Your task to perform on an android device: Show me the alarms in the clock app Image 0: 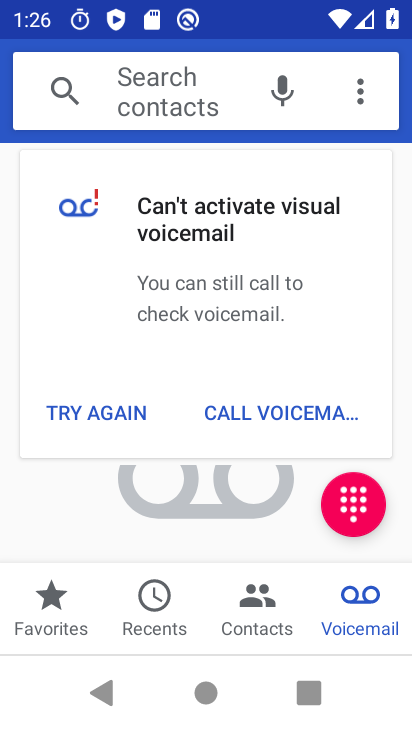
Step 0: press home button
Your task to perform on an android device: Show me the alarms in the clock app Image 1: 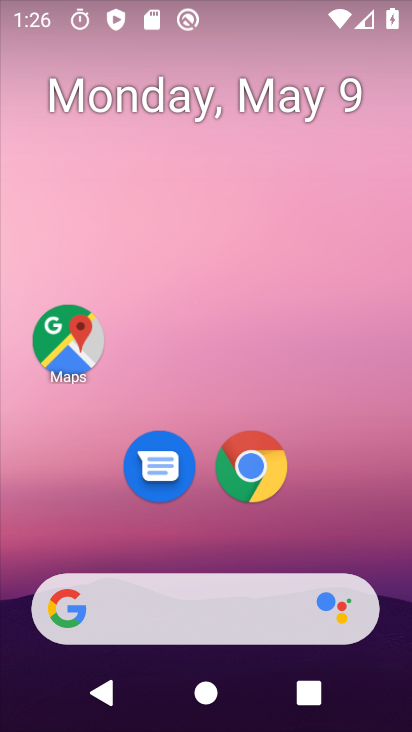
Step 1: drag from (262, 600) to (242, 332)
Your task to perform on an android device: Show me the alarms in the clock app Image 2: 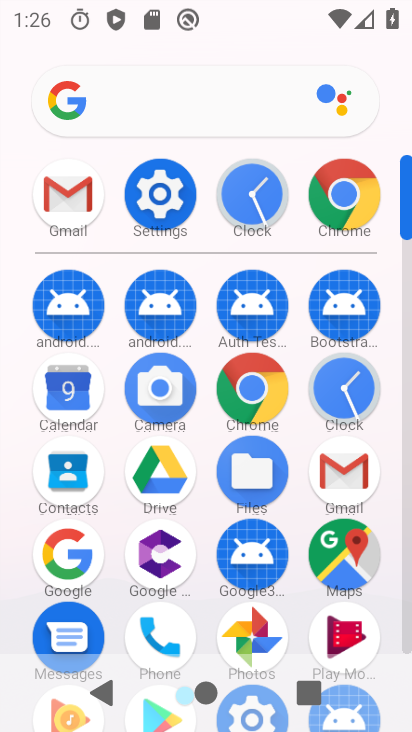
Step 2: click (354, 400)
Your task to perform on an android device: Show me the alarms in the clock app Image 3: 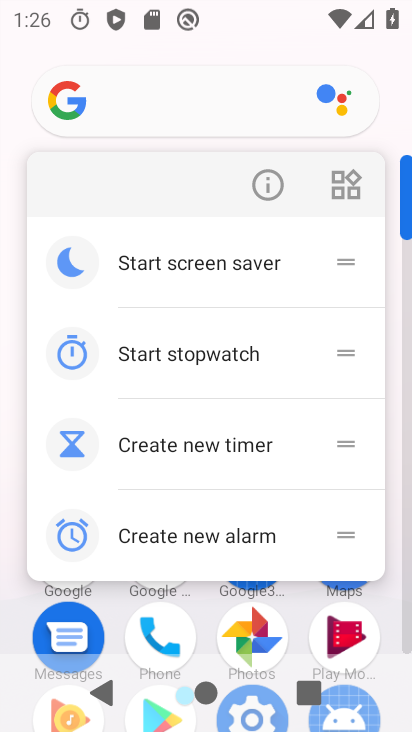
Step 3: click (269, 625)
Your task to perform on an android device: Show me the alarms in the clock app Image 4: 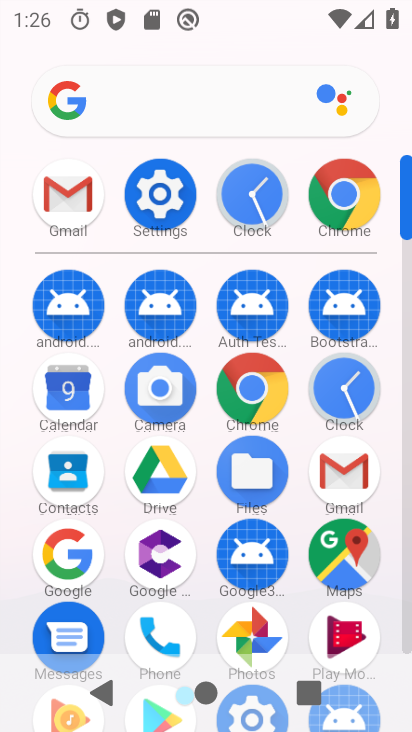
Step 4: click (346, 374)
Your task to perform on an android device: Show me the alarms in the clock app Image 5: 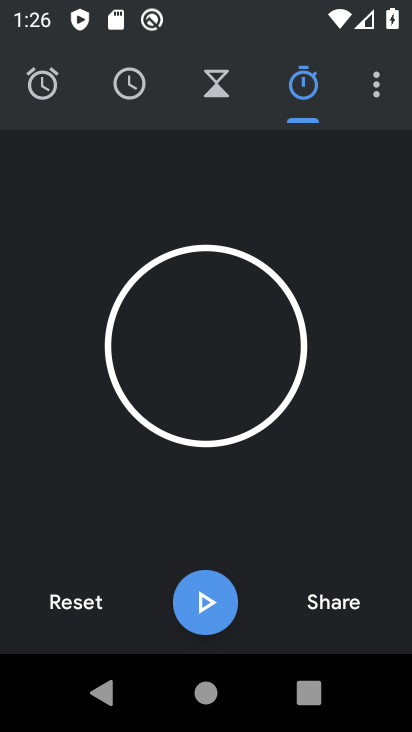
Step 5: click (53, 93)
Your task to perform on an android device: Show me the alarms in the clock app Image 6: 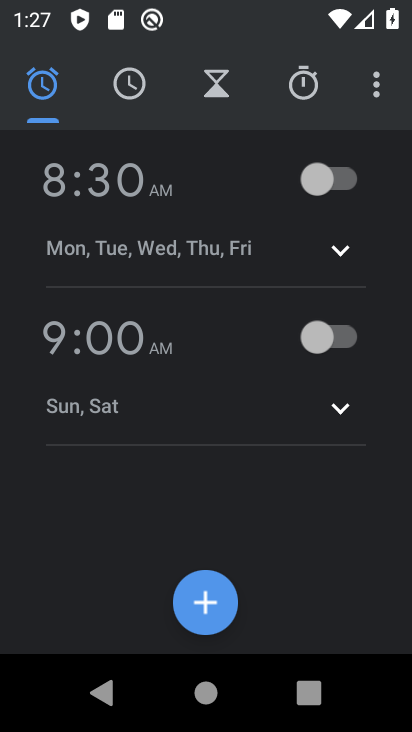
Step 6: task complete